Your task to perform on an android device: visit the assistant section in the google photos Image 0: 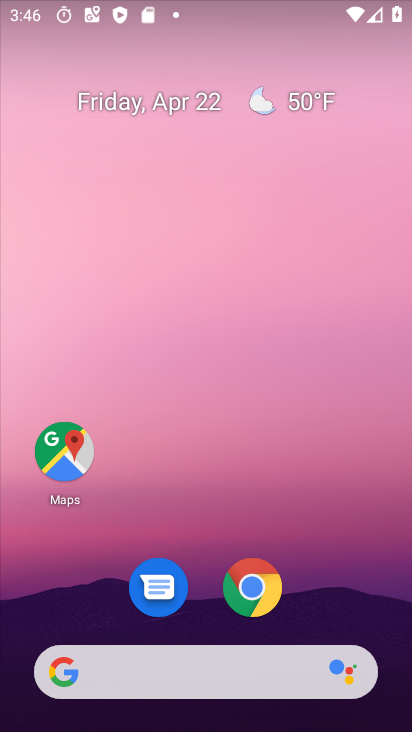
Step 0: drag from (378, 472) to (361, 0)
Your task to perform on an android device: visit the assistant section in the google photos Image 1: 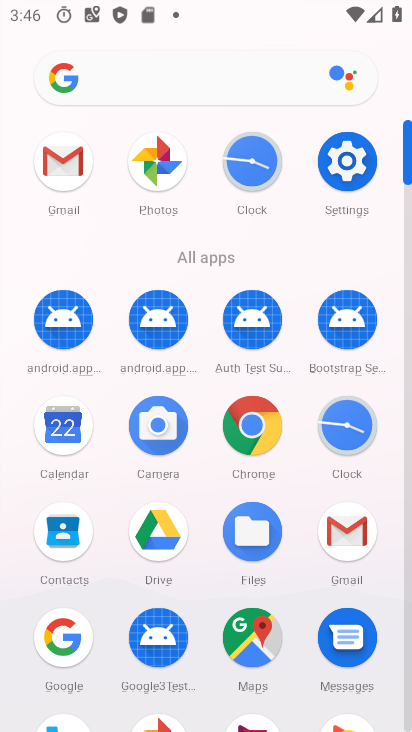
Step 1: click (157, 172)
Your task to perform on an android device: visit the assistant section in the google photos Image 2: 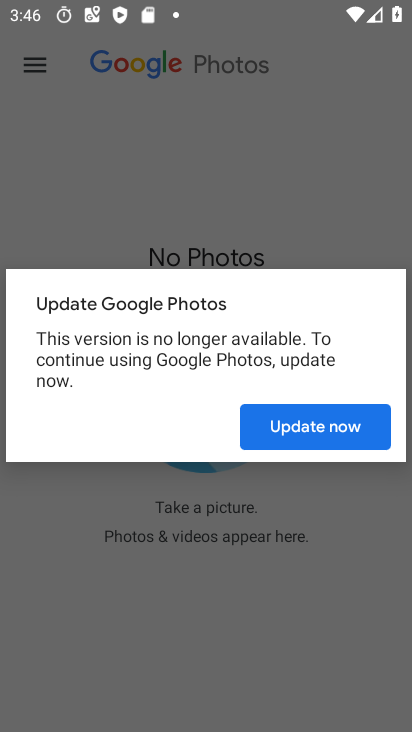
Step 2: click (304, 441)
Your task to perform on an android device: visit the assistant section in the google photos Image 3: 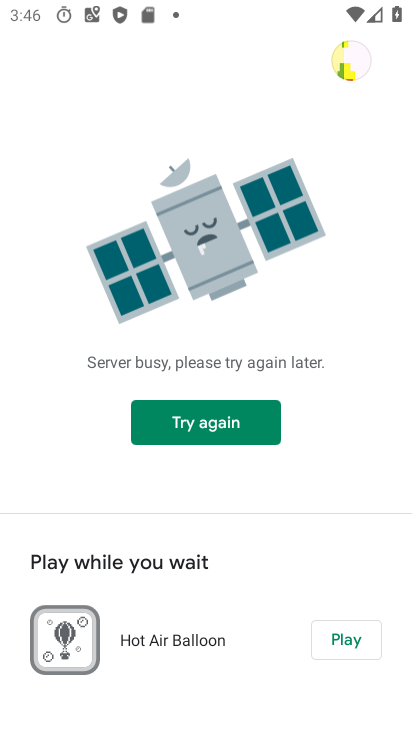
Step 3: task complete